Your task to perform on an android device: allow notifications from all sites in the chrome app Image 0: 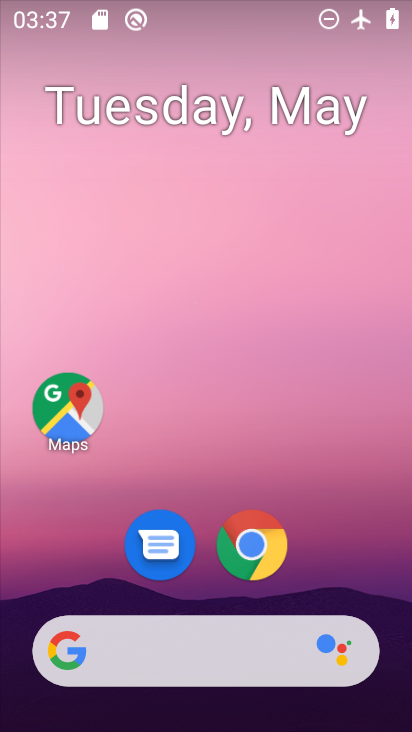
Step 0: click (253, 545)
Your task to perform on an android device: allow notifications from all sites in the chrome app Image 1: 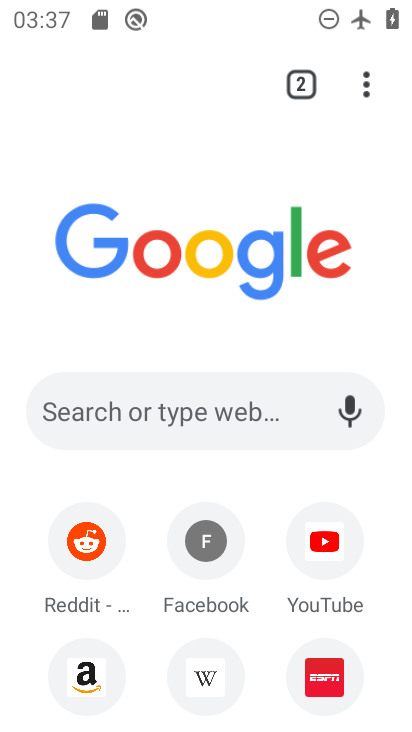
Step 1: click (360, 94)
Your task to perform on an android device: allow notifications from all sites in the chrome app Image 2: 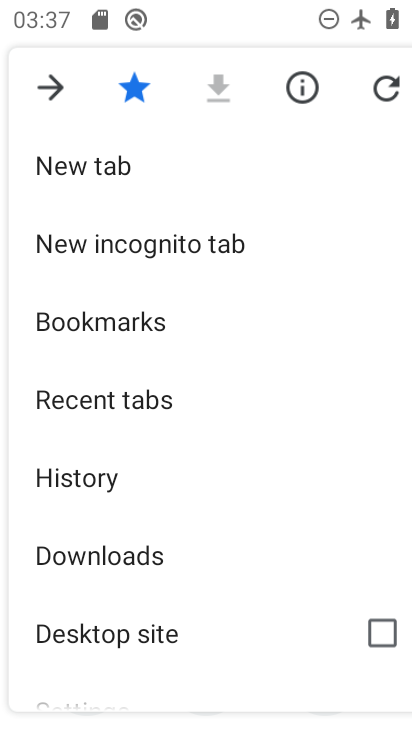
Step 2: drag from (228, 639) to (209, 292)
Your task to perform on an android device: allow notifications from all sites in the chrome app Image 3: 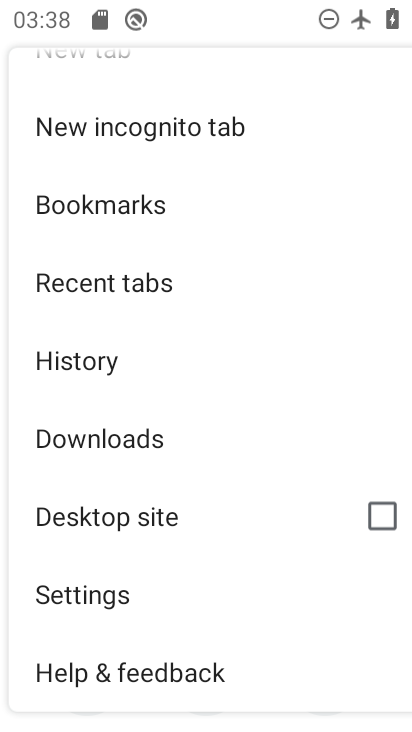
Step 3: click (101, 596)
Your task to perform on an android device: allow notifications from all sites in the chrome app Image 4: 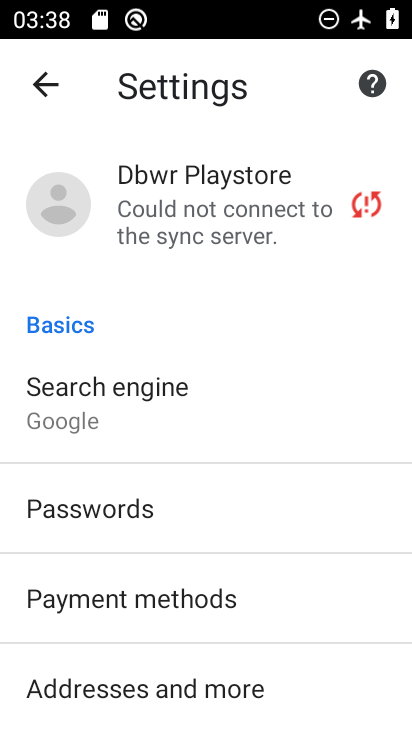
Step 4: drag from (304, 620) to (223, 227)
Your task to perform on an android device: allow notifications from all sites in the chrome app Image 5: 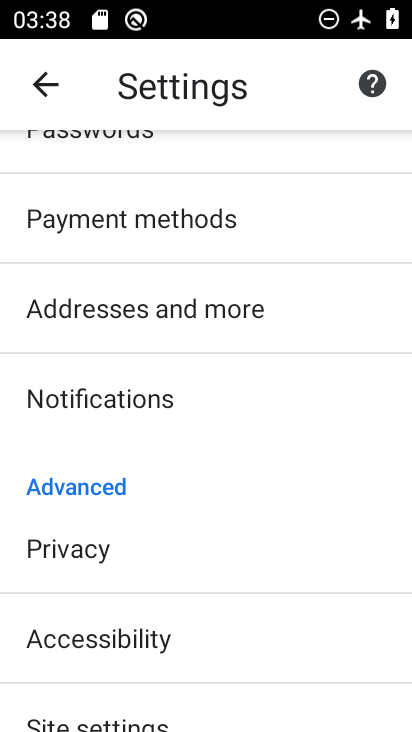
Step 5: drag from (234, 647) to (254, 265)
Your task to perform on an android device: allow notifications from all sites in the chrome app Image 6: 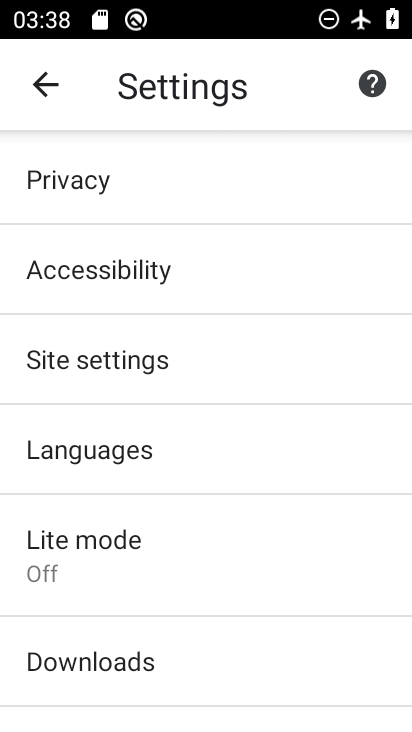
Step 6: click (91, 360)
Your task to perform on an android device: allow notifications from all sites in the chrome app Image 7: 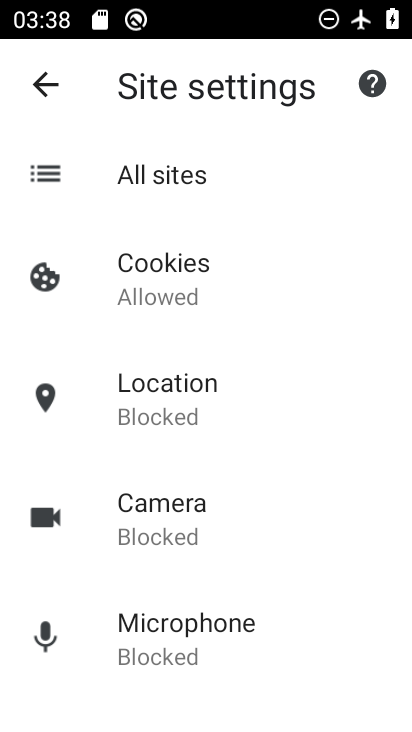
Step 7: drag from (315, 637) to (269, 254)
Your task to perform on an android device: allow notifications from all sites in the chrome app Image 8: 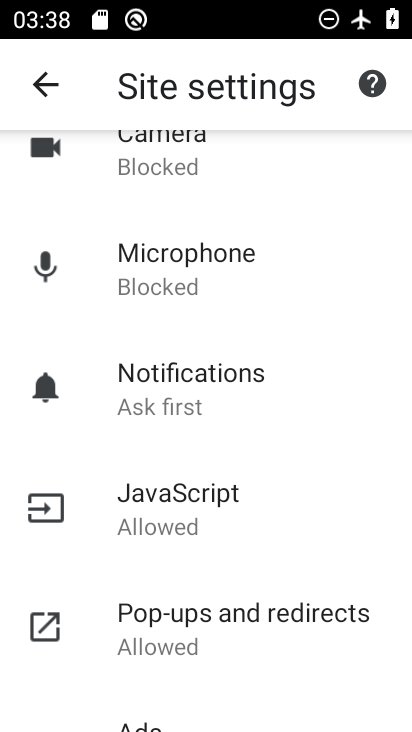
Step 8: click (167, 383)
Your task to perform on an android device: allow notifications from all sites in the chrome app Image 9: 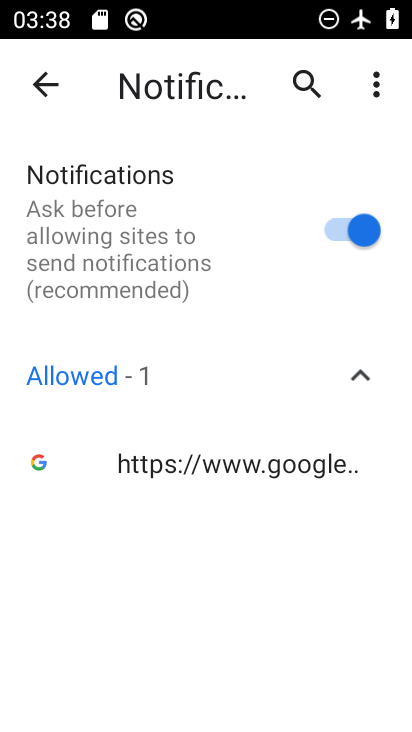
Step 9: task complete